Your task to perform on an android device: allow cookies in the chrome app Image 0: 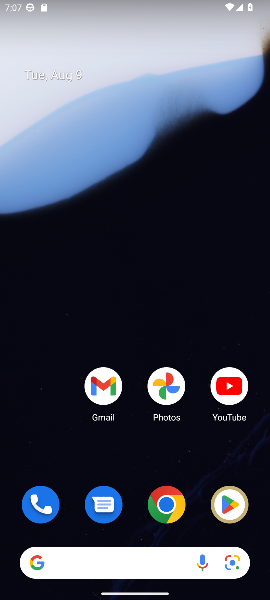
Step 0: click (172, 504)
Your task to perform on an android device: allow cookies in the chrome app Image 1: 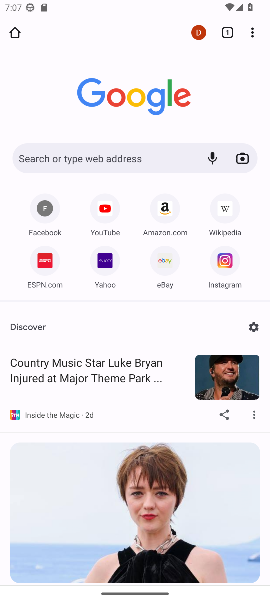
Step 1: click (261, 37)
Your task to perform on an android device: allow cookies in the chrome app Image 2: 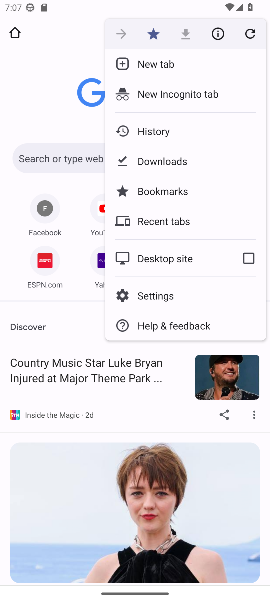
Step 2: click (158, 302)
Your task to perform on an android device: allow cookies in the chrome app Image 3: 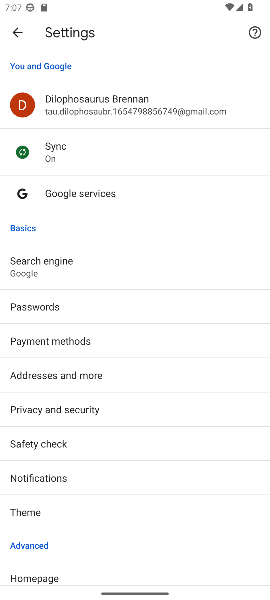
Step 3: drag from (97, 432) to (105, 245)
Your task to perform on an android device: allow cookies in the chrome app Image 4: 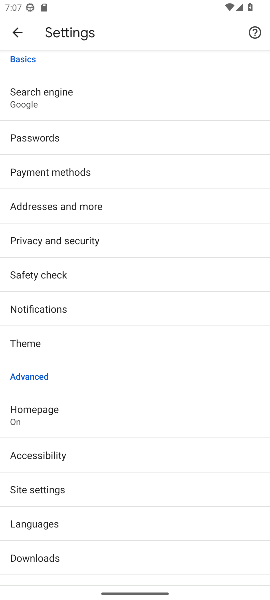
Step 4: click (64, 487)
Your task to perform on an android device: allow cookies in the chrome app Image 5: 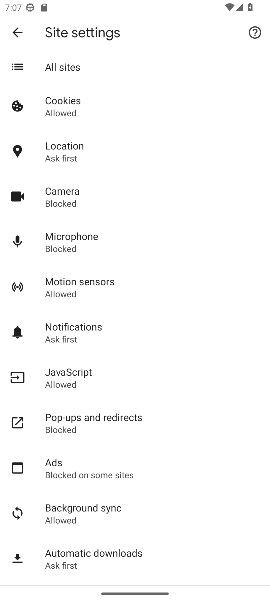
Step 5: click (64, 93)
Your task to perform on an android device: allow cookies in the chrome app Image 6: 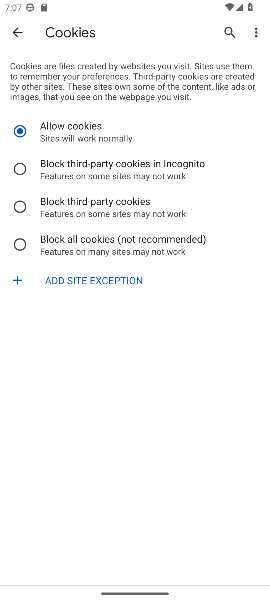
Step 6: click (57, 134)
Your task to perform on an android device: allow cookies in the chrome app Image 7: 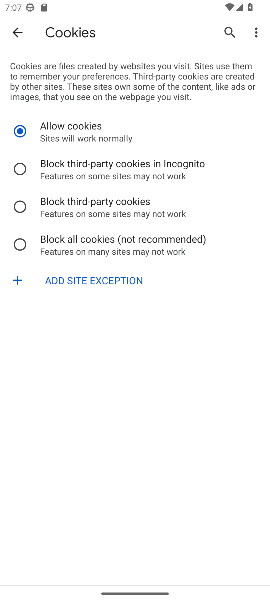
Step 7: task complete